Your task to perform on an android device: What's on my calendar tomorrow? Image 0: 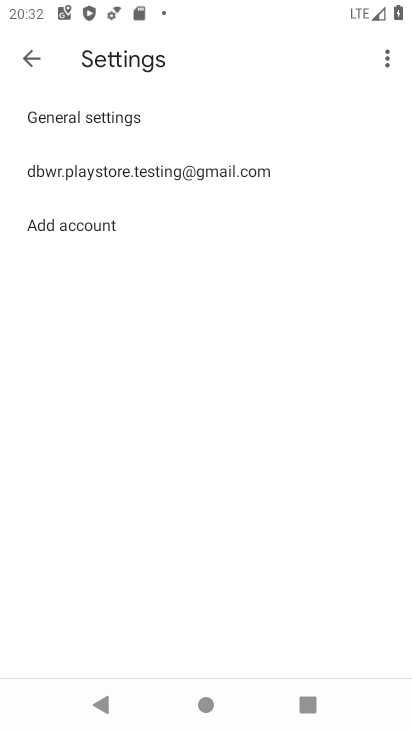
Step 0: press back button
Your task to perform on an android device: What's on my calendar tomorrow? Image 1: 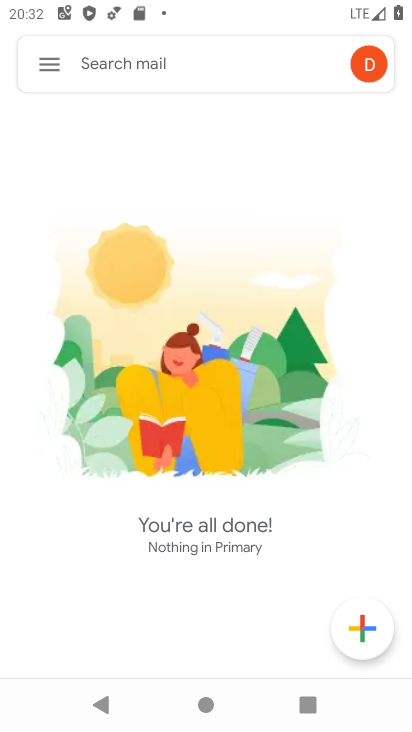
Step 1: press back button
Your task to perform on an android device: What's on my calendar tomorrow? Image 2: 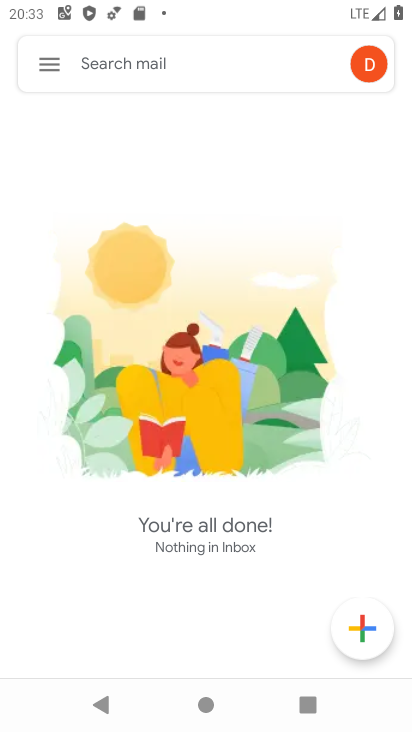
Step 2: press back button
Your task to perform on an android device: What's on my calendar tomorrow? Image 3: 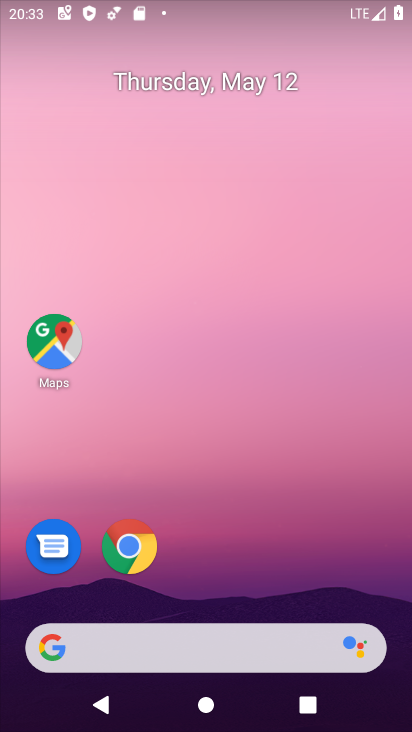
Step 3: click (191, 656)
Your task to perform on an android device: What's on my calendar tomorrow? Image 4: 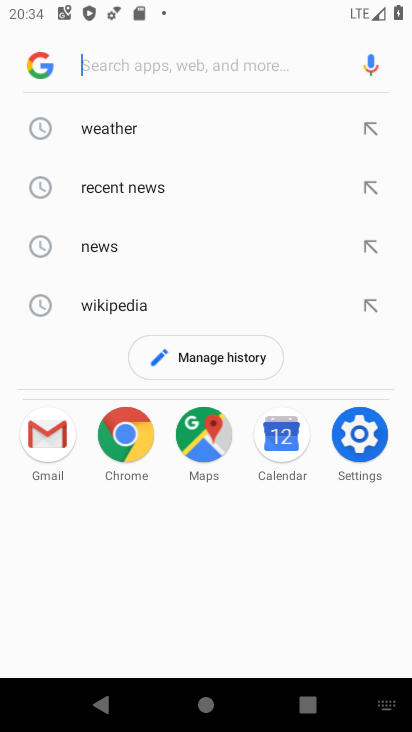
Step 4: press back button
Your task to perform on an android device: What's on my calendar tomorrow? Image 5: 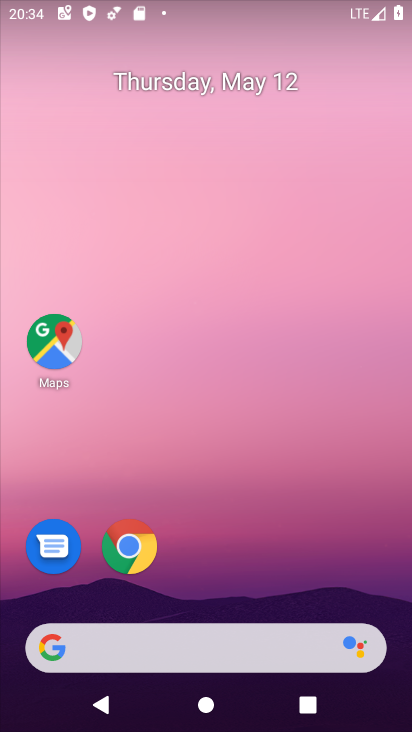
Step 5: drag from (216, 571) to (315, 4)
Your task to perform on an android device: What's on my calendar tomorrow? Image 6: 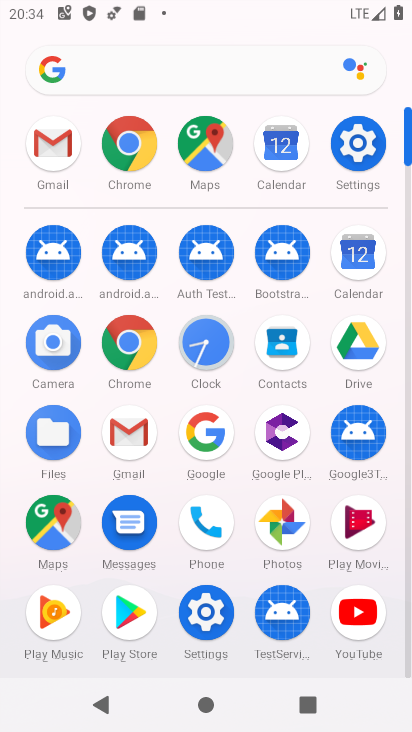
Step 6: click (360, 253)
Your task to perform on an android device: What's on my calendar tomorrow? Image 7: 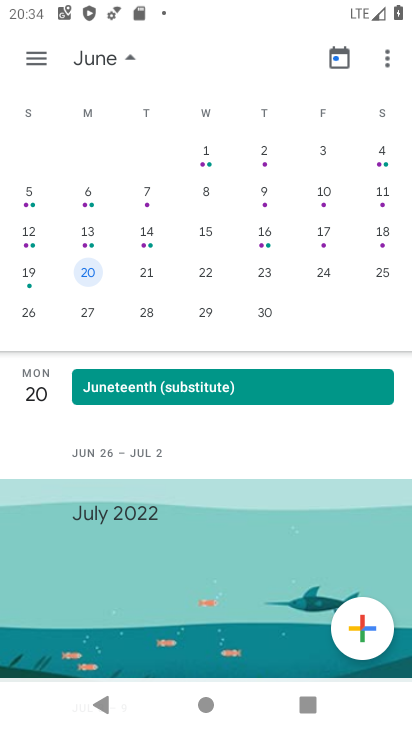
Step 7: drag from (37, 203) to (400, 213)
Your task to perform on an android device: What's on my calendar tomorrow? Image 8: 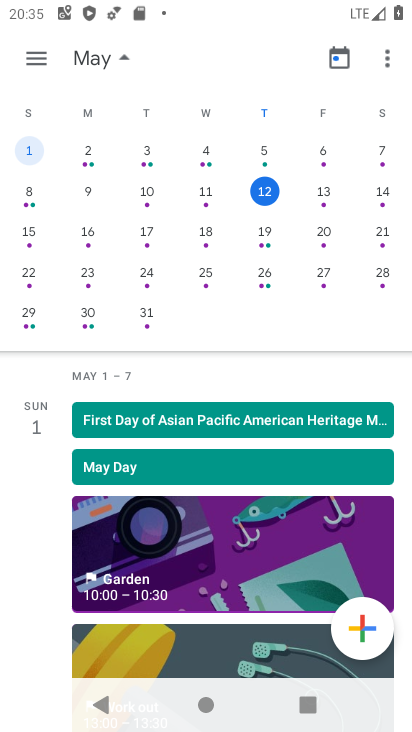
Step 8: click (260, 185)
Your task to perform on an android device: What's on my calendar tomorrow? Image 9: 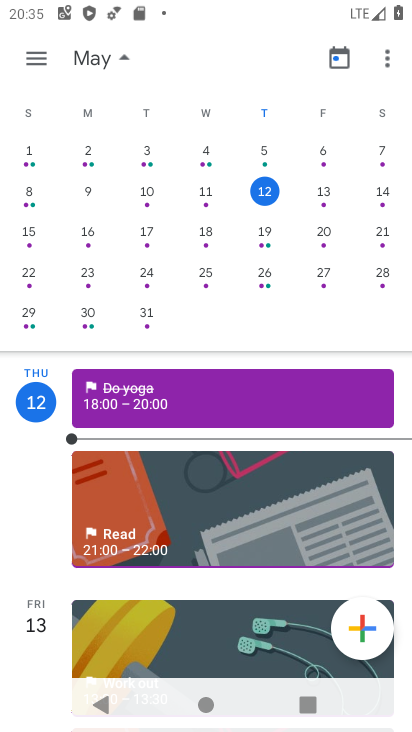
Step 9: click (315, 188)
Your task to perform on an android device: What's on my calendar tomorrow? Image 10: 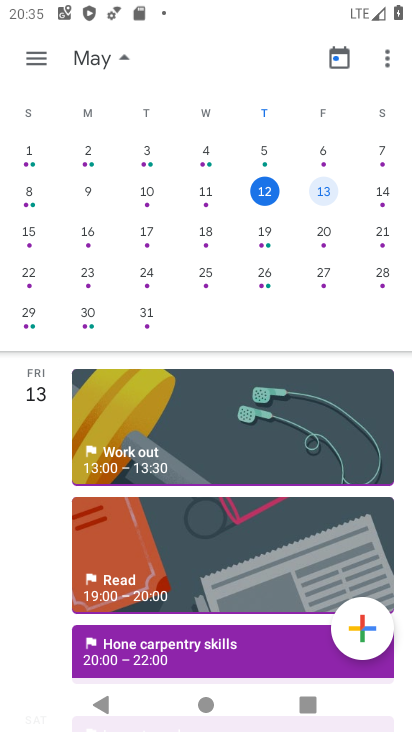
Step 10: drag from (191, 597) to (238, 137)
Your task to perform on an android device: What's on my calendar tomorrow? Image 11: 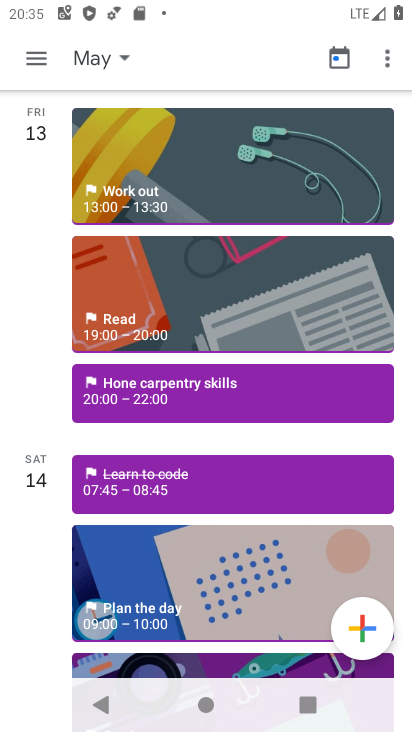
Step 11: drag from (172, 613) to (220, 288)
Your task to perform on an android device: What's on my calendar tomorrow? Image 12: 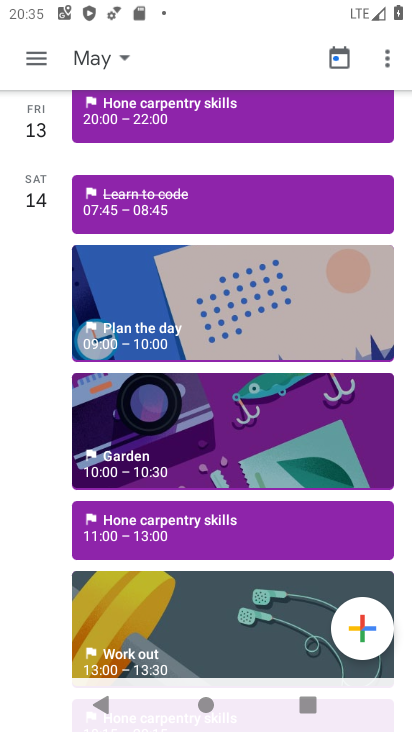
Step 12: click (163, 417)
Your task to perform on an android device: What's on my calendar tomorrow? Image 13: 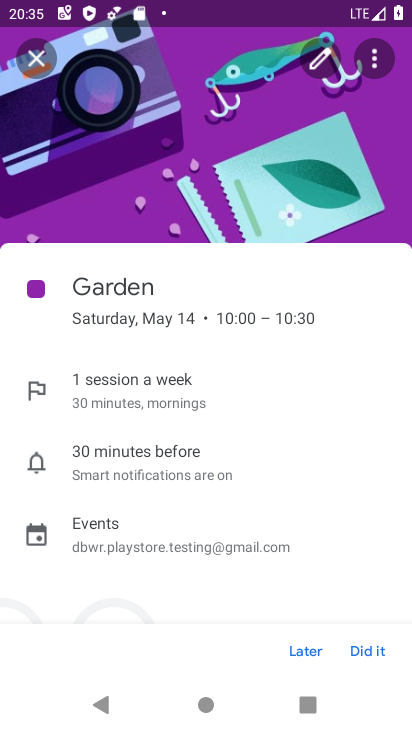
Step 13: task complete